Your task to perform on an android device: open a bookmark in the chrome app Image 0: 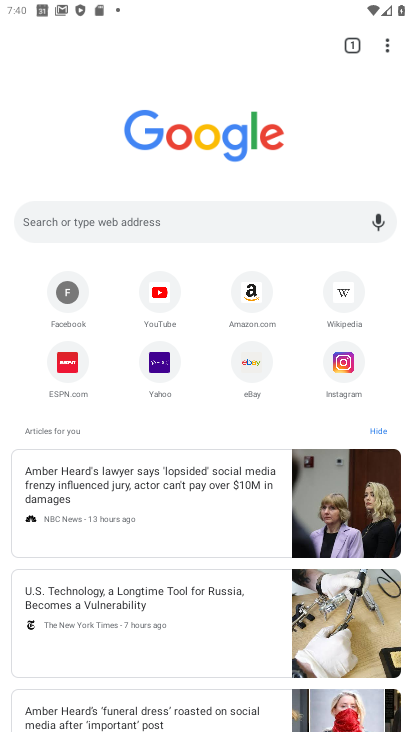
Step 0: click (380, 44)
Your task to perform on an android device: open a bookmark in the chrome app Image 1: 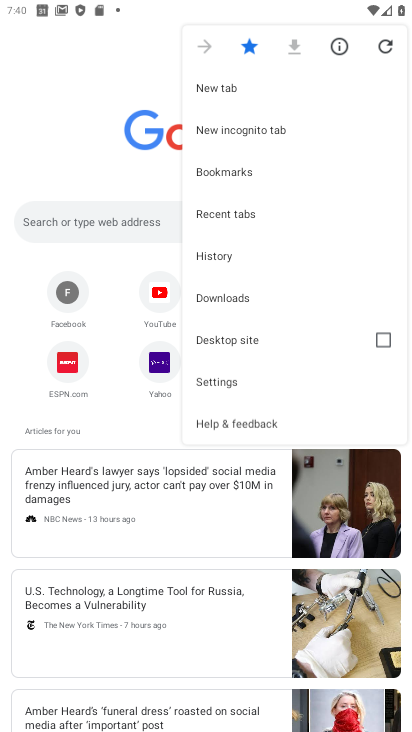
Step 1: click (244, 172)
Your task to perform on an android device: open a bookmark in the chrome app Image 2: 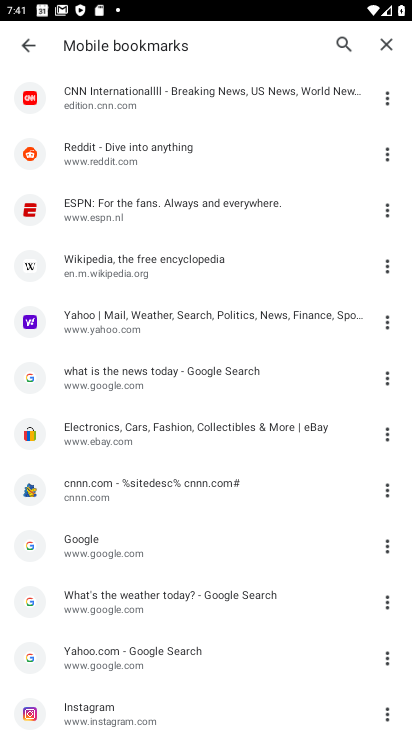
Step 2: task complete